Your task to perform on an android device: Play the last video I watched on Youtube Image 0: 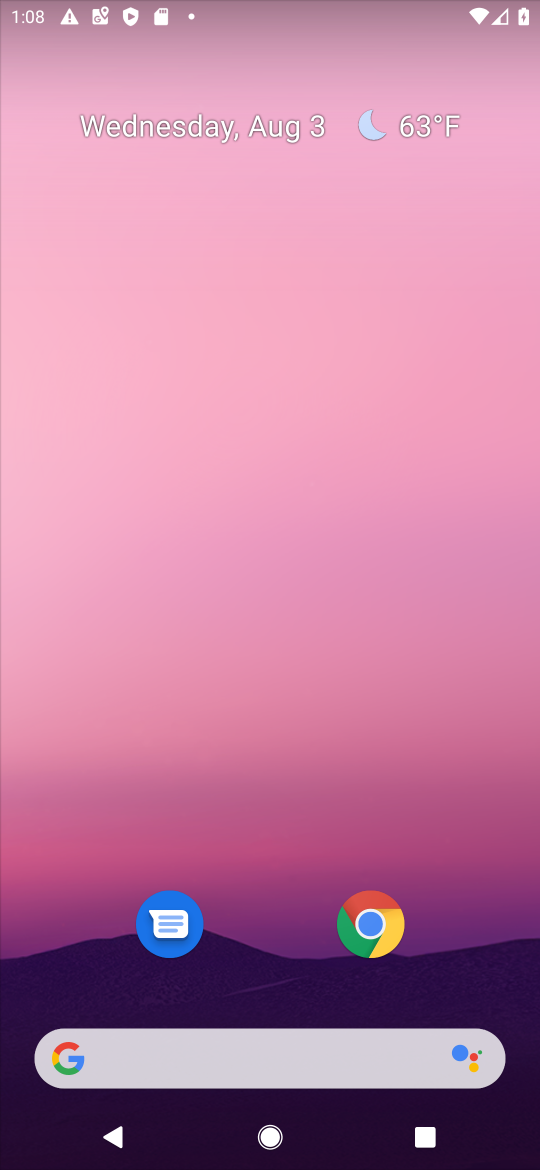
Step 0: drag from (316, 853) to (379, 219)
Your task to perform on an android device: Play the last video I watched on Youtube Image 1: 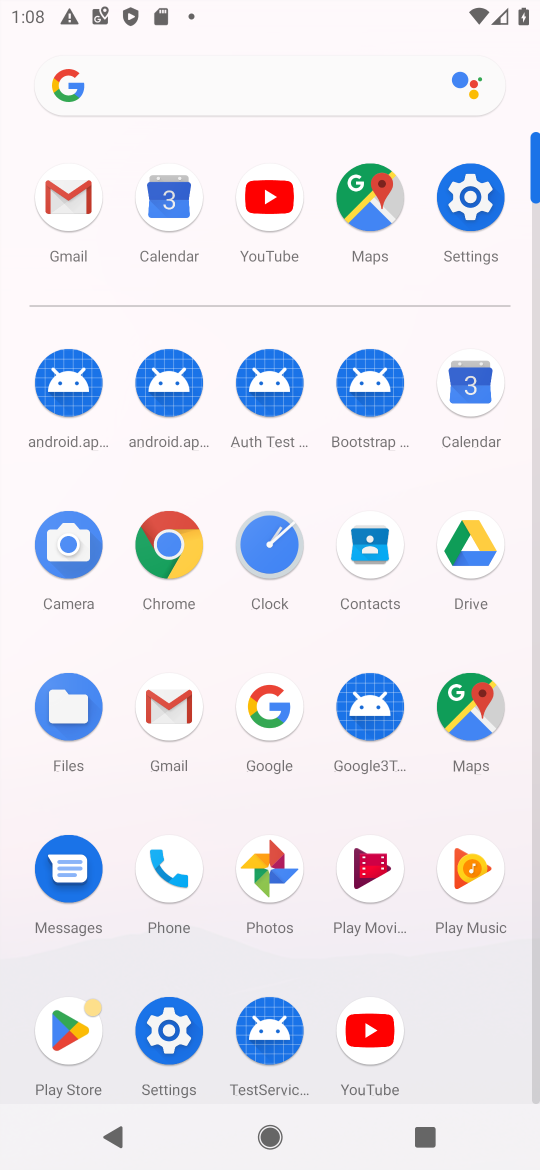
Step 1: click (370, 1028)
Your task to perform on an android device: Play the last video I watched on Youtube Image 2: 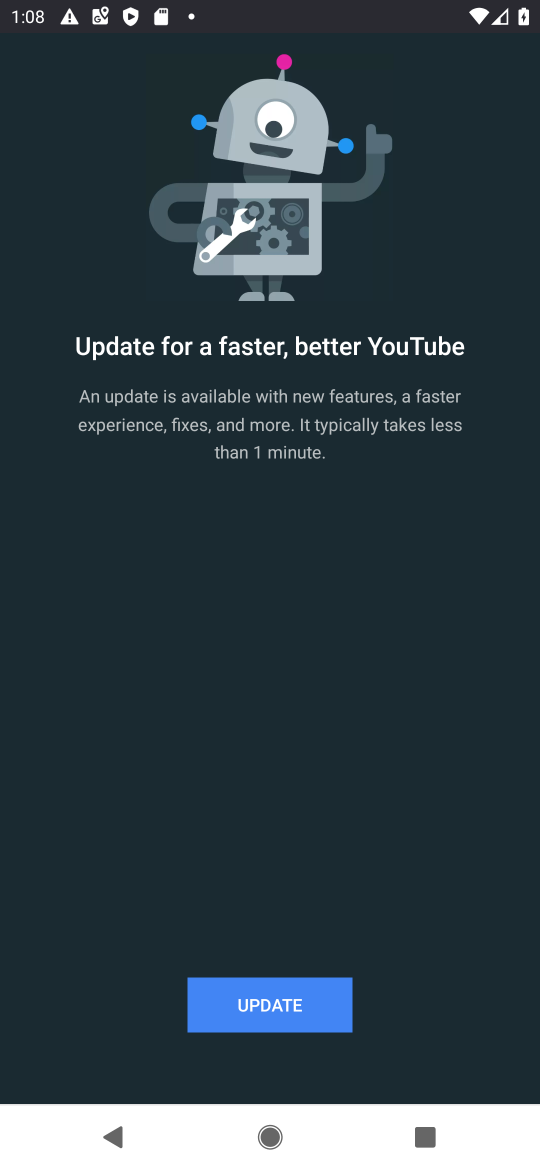
Step 2: task complete